Your task to perform on an android device: add a label to a message in the gmail app Image 0: 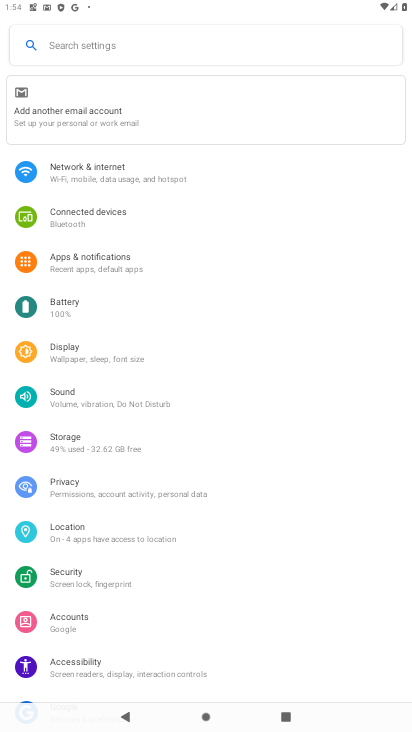
Step 0: press home button
Your task to perform on an android device: add a label to a message in the gmail app Image 1: 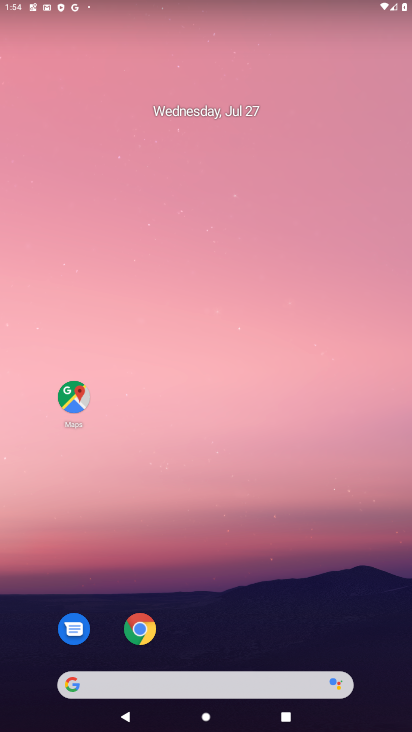
Step 1: drag from (254, 626) to (161, 238)
Your task to perform on an android device: add a label to a message in the gmail app Image 2: 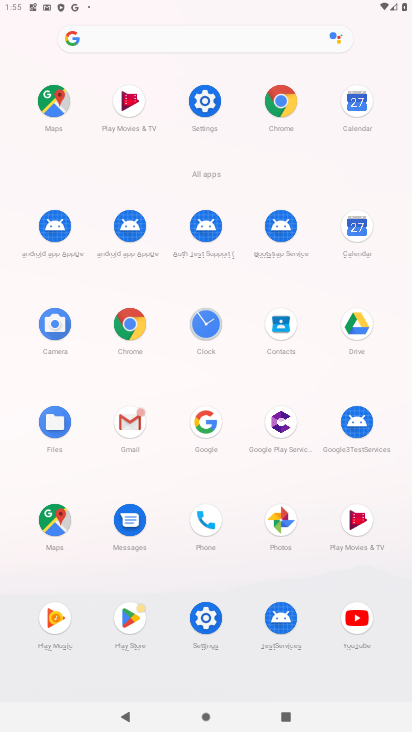
Step 2: click (141, 425)
Your task to perform on an android device: add a label to a message in the gmail app Image 3: 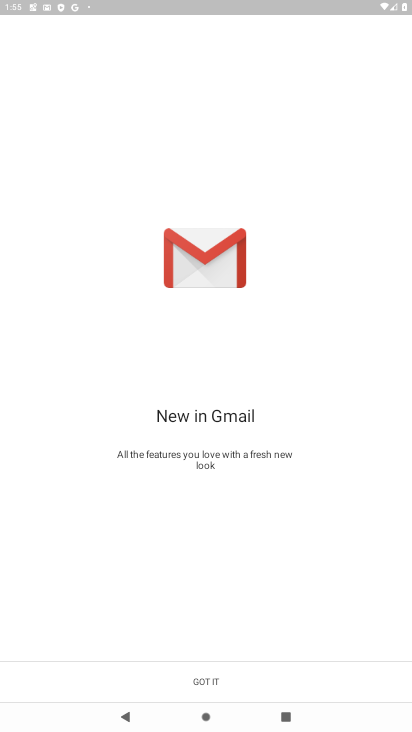
Step 3: click (229, 678)
Your task to perform on an android device: add a label to a message in the gmail app Image 4: 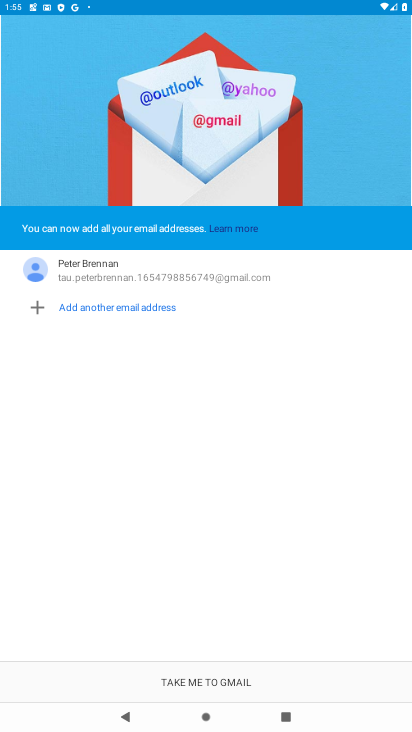
Step 4: click (229, 678)
Your task to perform on an android device: add a label to a message in the gmail app Image 5: 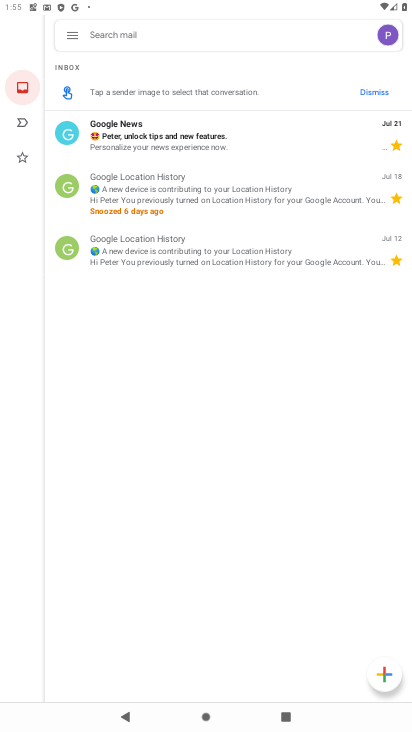
Step 5: task complete